Your task to perform on an android device: Open calendar and show me the second week of next month Image 0: 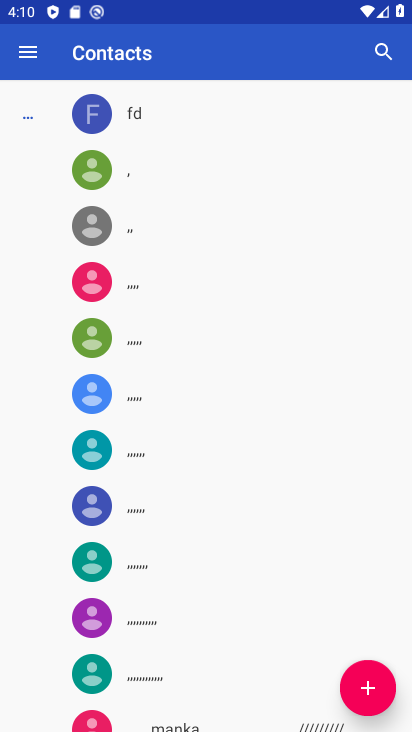
Step 0: press home button
Your task to perform on an android device: Open calendar and show me the second week of next month Image 1: 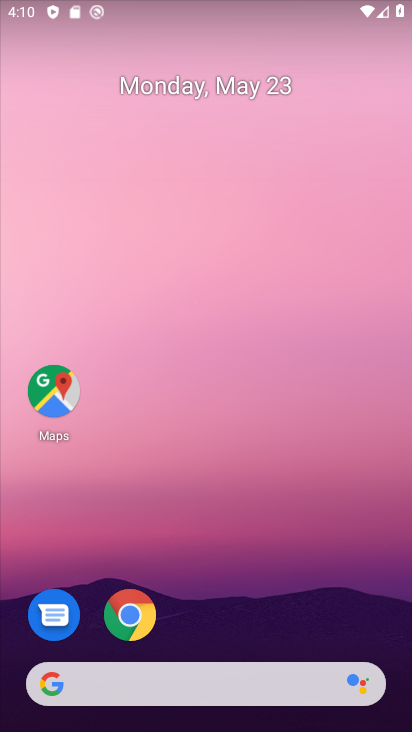
Step 1: drag from (210, 626) to (292, 64)
Your task to perform on an android device: Open calendar and show me the second week of next month Image 2: 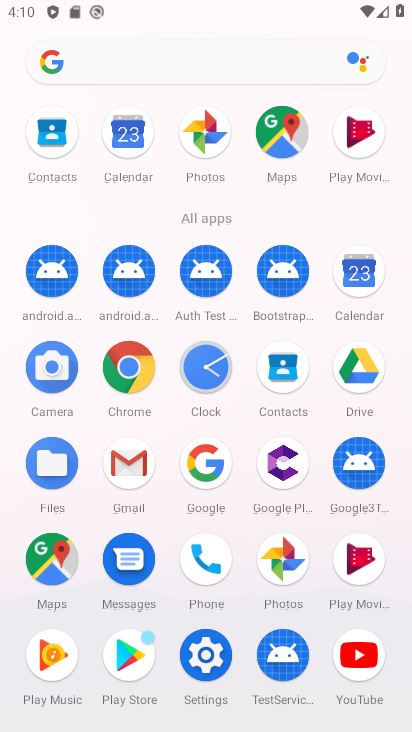
Step 2: click (356, 275)
Your task to perform on an android device: Open calendar and show me the second week of next month Image 3: 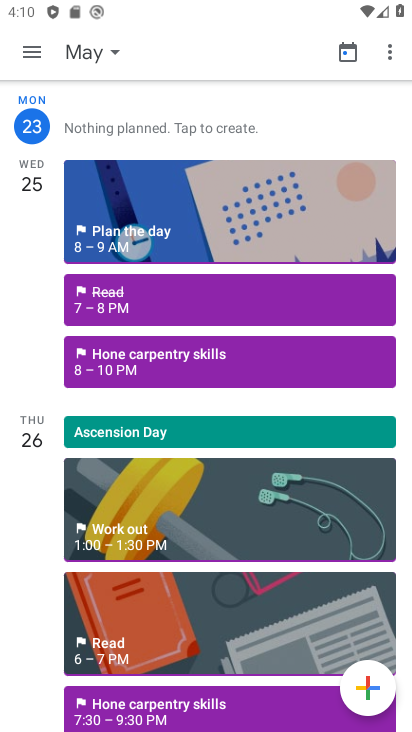
Step 3: click (32, 45)
Your task to perform on an android device: Open calendar and show me the second week of next month Image 4: 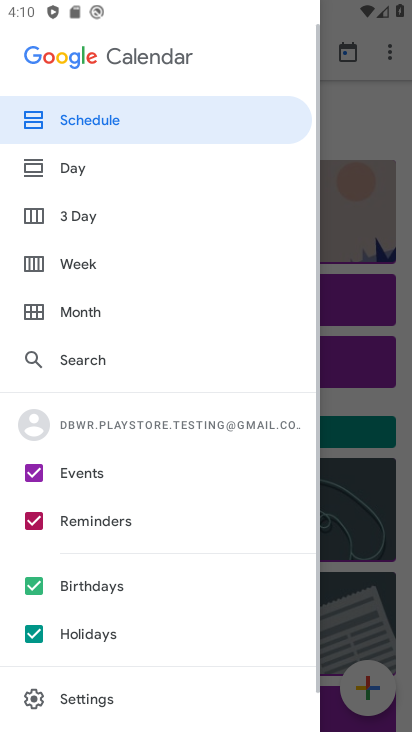
Step 4: click (48, 258)
Your task to perform on an android device: Open calendar and show me the second week of next month Image 5: 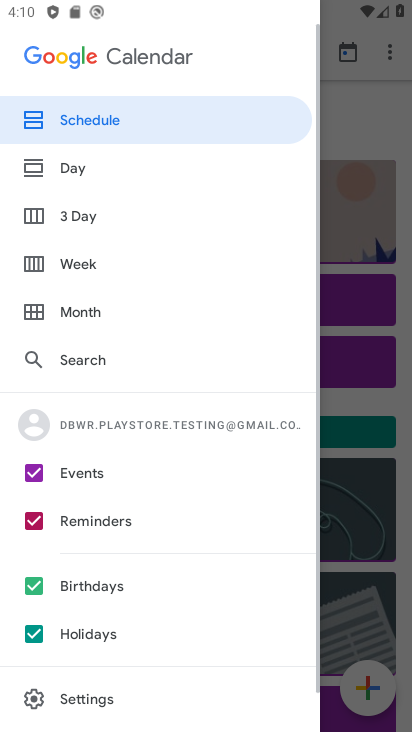
Step 5: click (30, 262)
Your task to perform on an android device: Open calendar and show me the second week of next month Image 6: 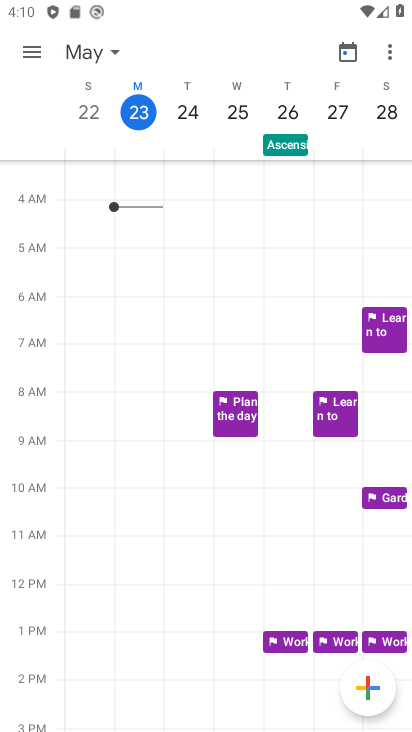
Step 6: task complete